Your task to perform on an android device: delete a single message in the gmail app Image 0: 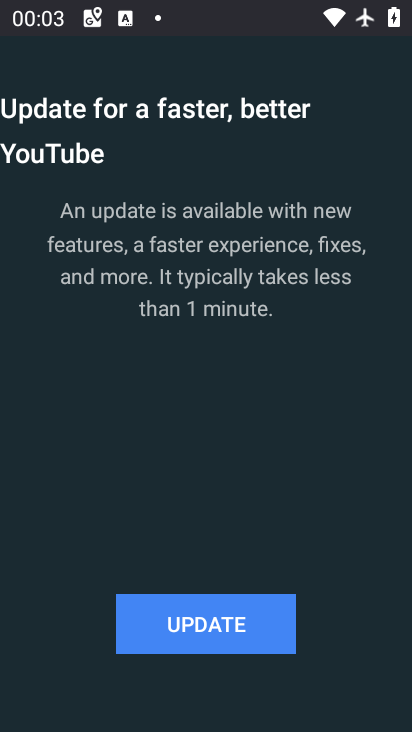
Step 0: press home button
Your task to perform on an android device: delete a single message in the gmail app Image 1: 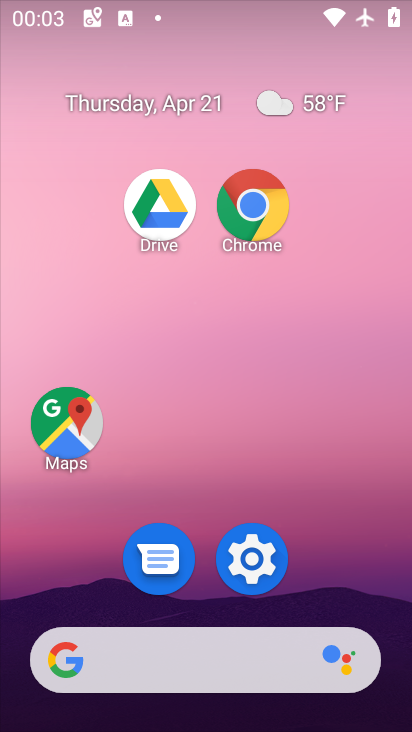
Step 1: drag from (304, 505) to (272, 30)
Your task to perform on an android device: delete a single message in the gmail app Image 2: 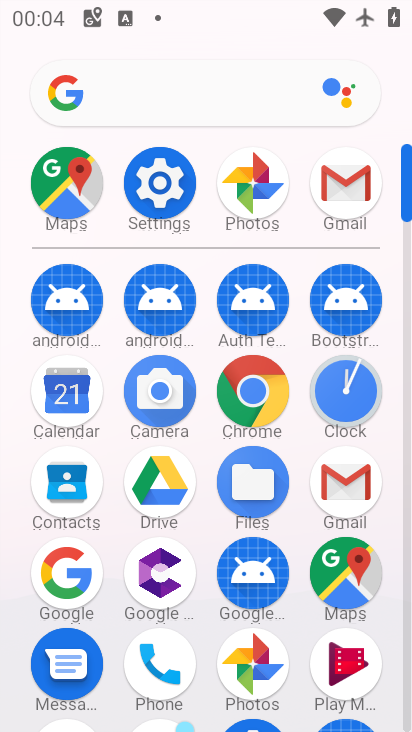
Step 2: click (328, 495)
Your task to perform on an android device: delete a single message in the gmail app Image 3: 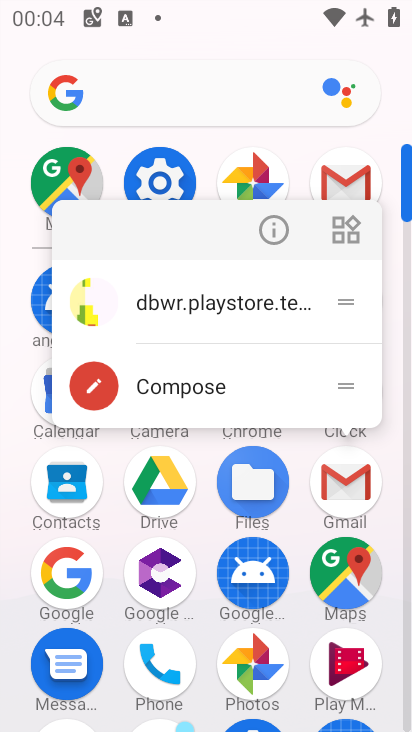
Step 3: click (339, 510)
Your task to perform on an android device: delete a single message in the gmail app Image 4: 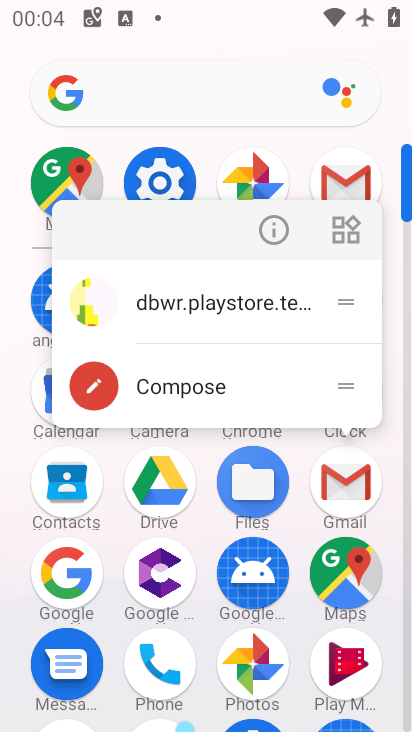
Step 4: click (338, 509)
Your task to perform on an android device: delete a single message in the gmail app Image 5: 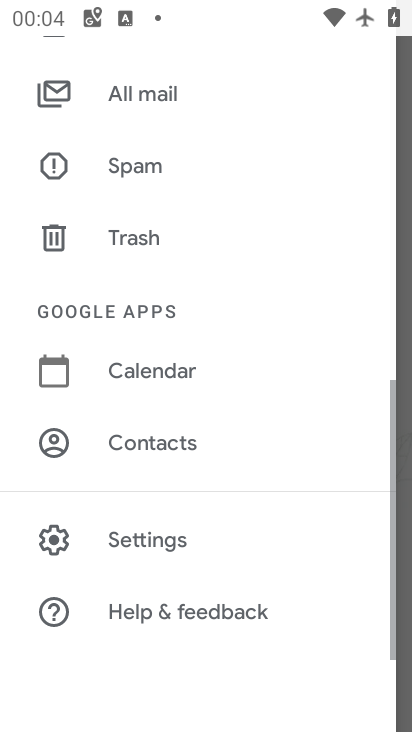
Step 5: click (338, 509)
Your task to perform on an android device: delete a single message in the gmail app Image 6: 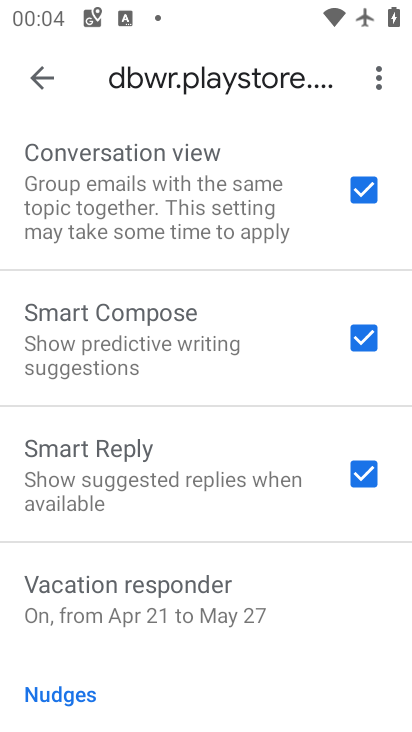
Step 6: press back button
Your task to perform on an android device: delete a single message in the gmail app Image 7: 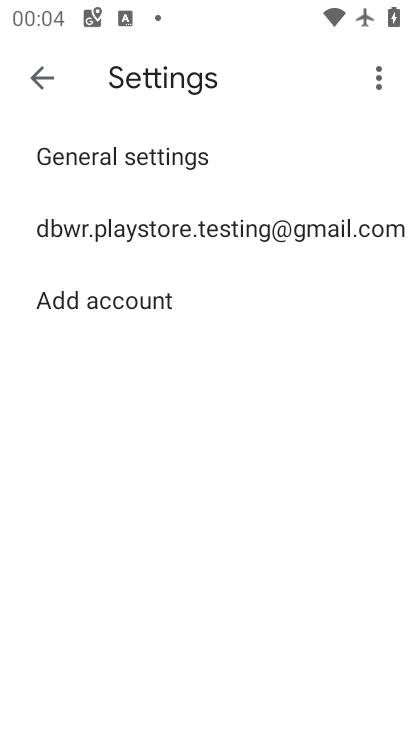
Step 7: click (50, 80)
Your task to perform on an android device: delete a single message in the gmail app Image 8: 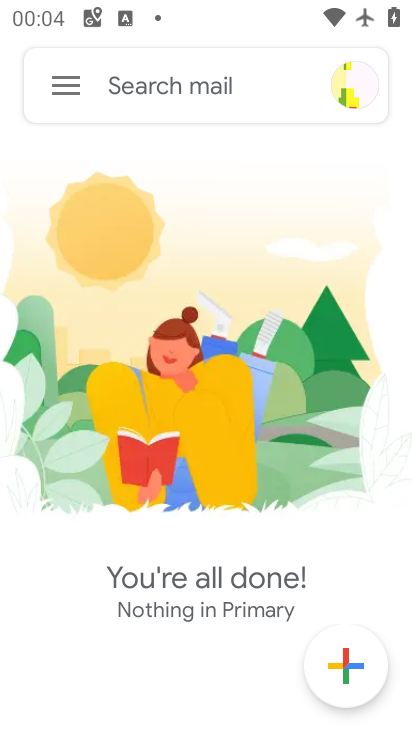
Step 8: task complete